Your task to perform on an android device: open app "The Home Depot" Image 0: 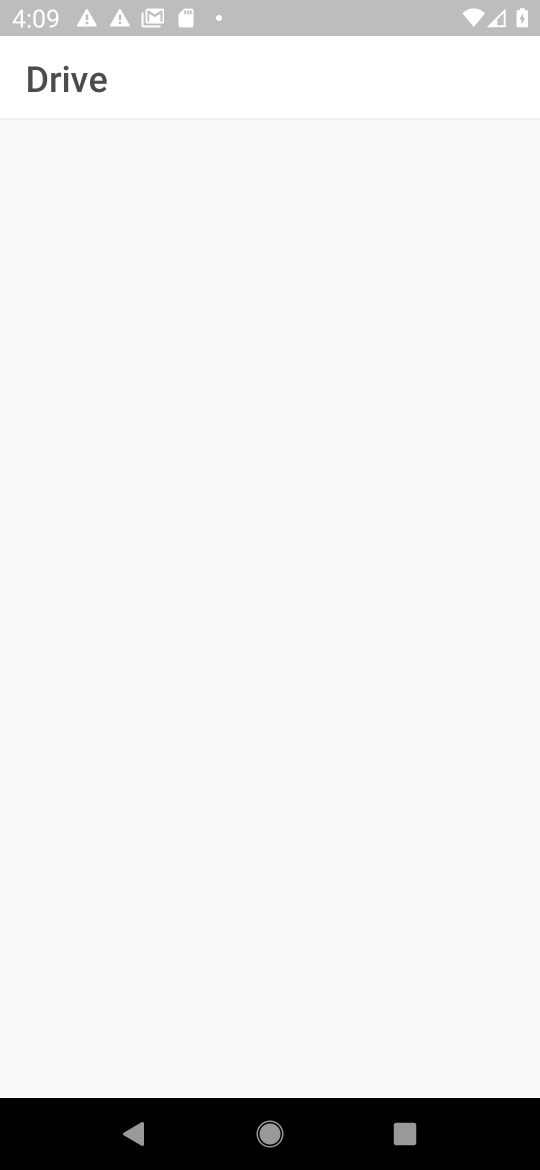
Step 0: press home button
Your task to perform on an android device: open app "The Home Depot" Image 1: 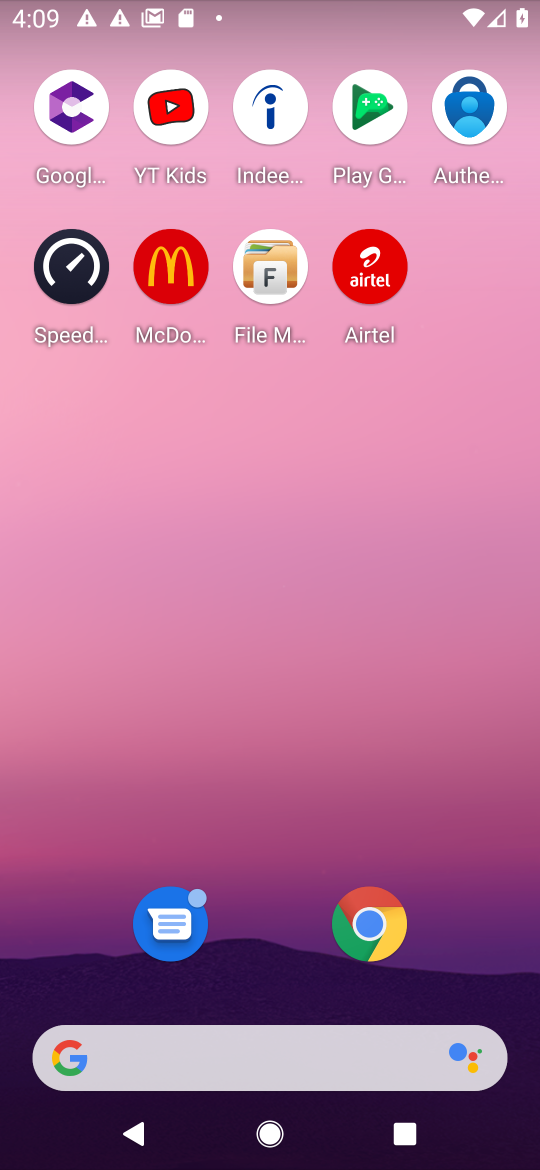
Step 1: drag from (317, 1056) to (317, 163)
Your task to perform on an android device: open app "The Home Depot" Image 2: 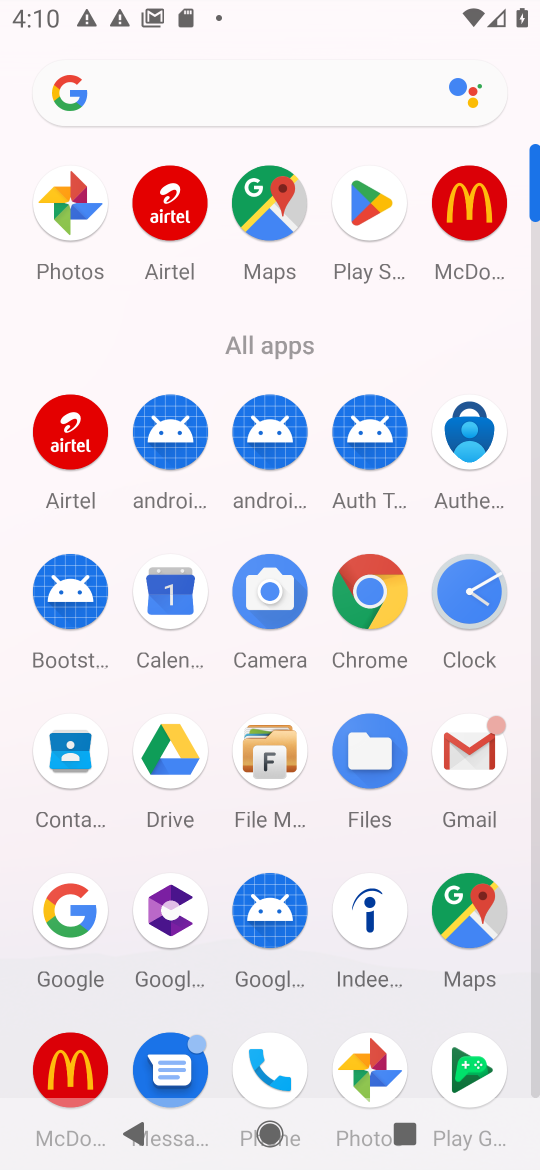
Step 2: click (373, 200)
Your task to perform on an android device: open app "The Home Depot" Image 3: 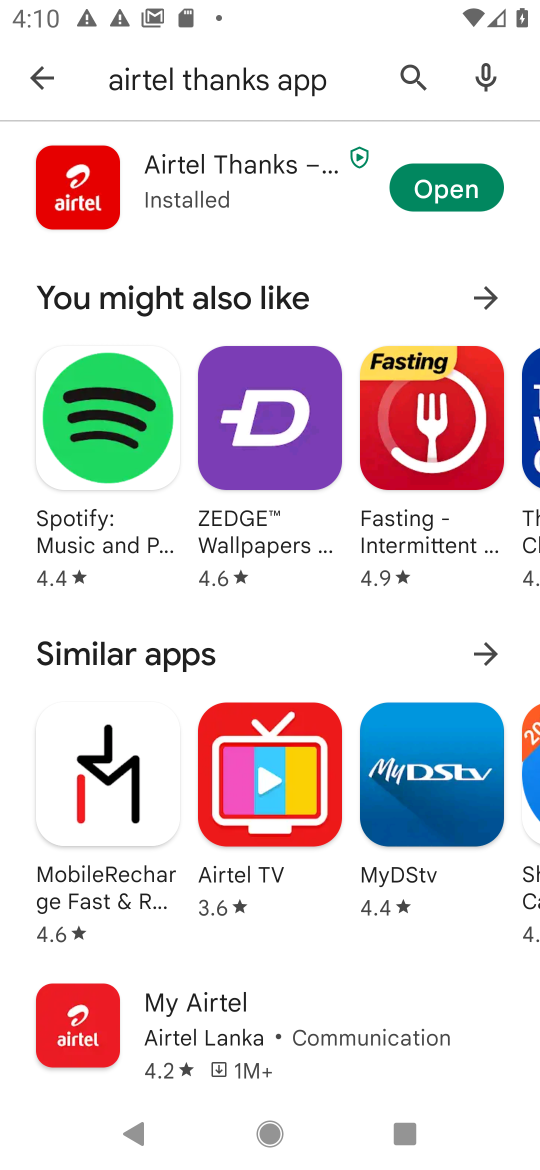
Step 3: click (415, 65)
Your task to perform on an android device: open app "The Home Depot" Image 4: 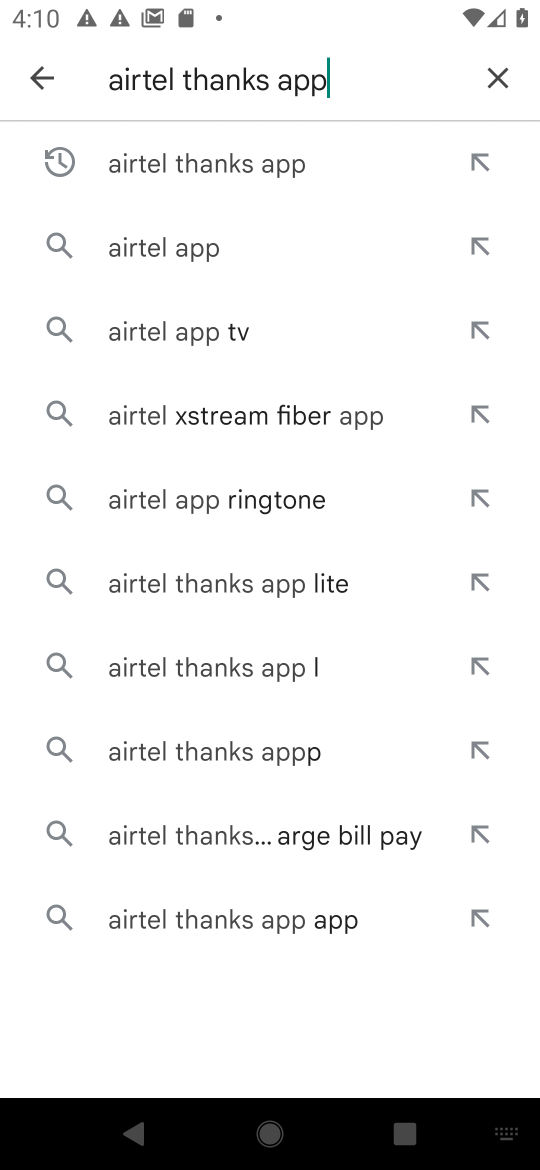
Step 4: click (495, 81)
Your task to perform on an android device: open app "The Home Depot" Image 5: 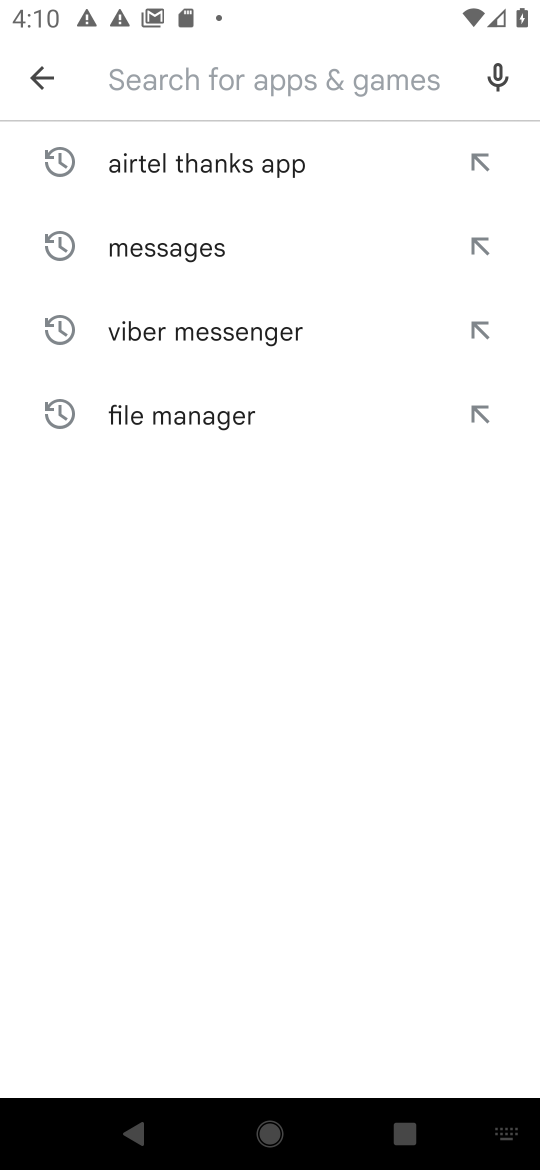
Step 5: type "The Home Depot"
Your task to perform on an android device: open app "The Home Depot" Image 6: 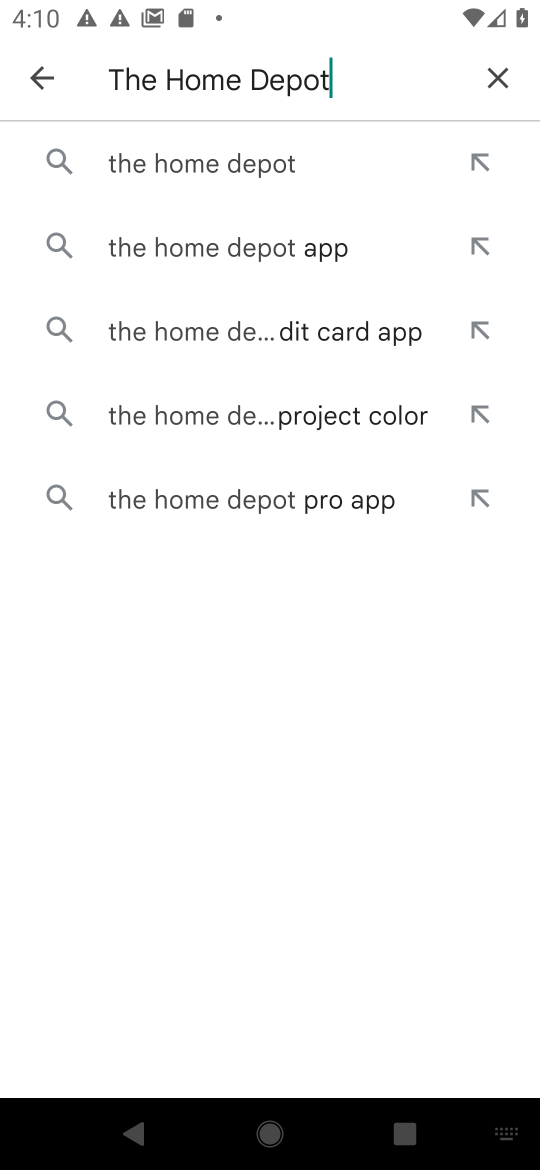
Step 6: click (220, 166)
Your task to perform on an android device: open app "The Home Depot" Image 7: 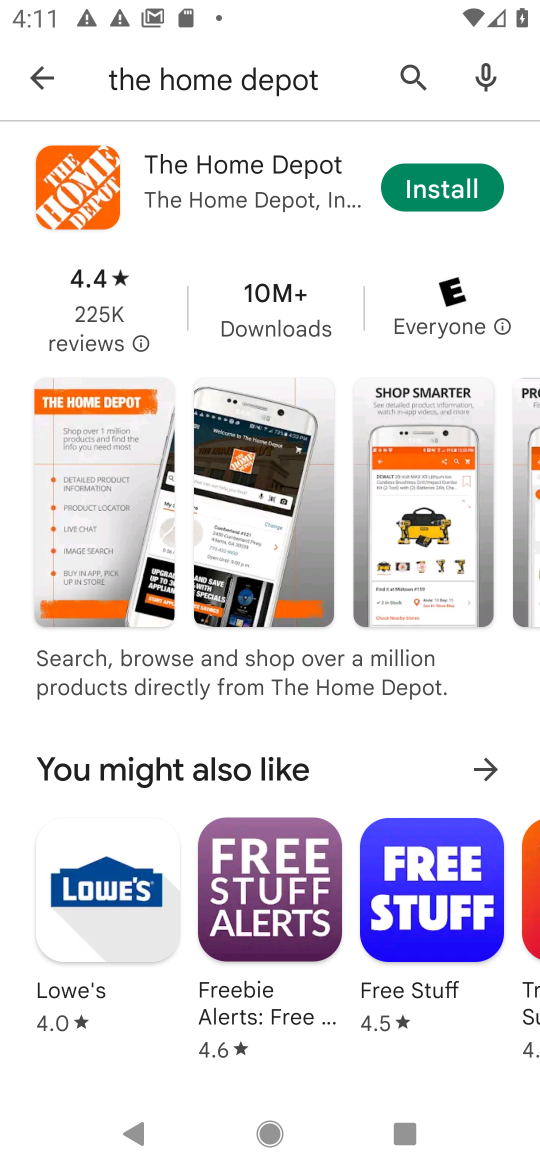
Step 7: task complete